Your task to perform on an android device: Show the shopping cart on ebay. Search for "energizer triple a" on ebay, select the first entry, add it to the cart, then select checkout. Image 0: 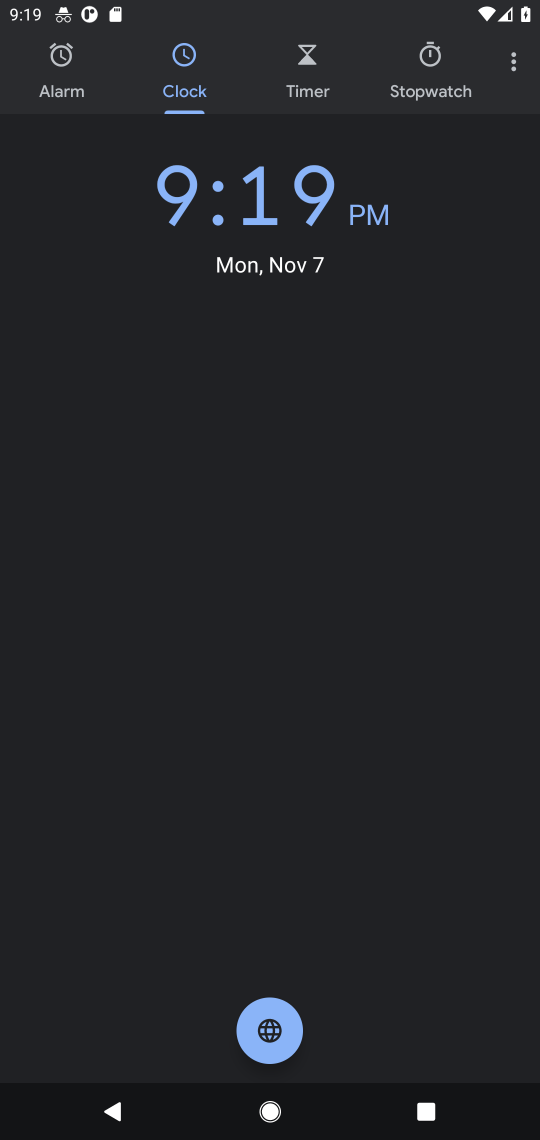
Step 0: press home button
Your task to perform on an android device: Show the shopping cart on ebay. Search for "energizer triple a" on ebay, select the first entry, add it to the cart, then select checkout. Image 1: 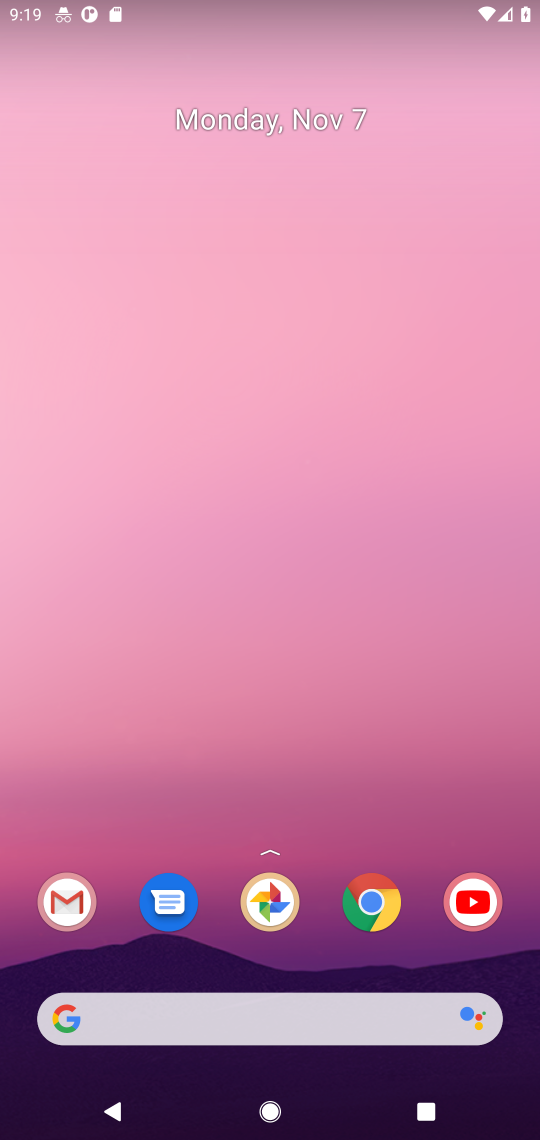
Step 1: click (359, 905)
Your task to perform on an android device: Show the shopping cart on ebay. Search for "energizer triple a" on ebay, select the first entry, add it to the cart, then select checkout. Image 2: 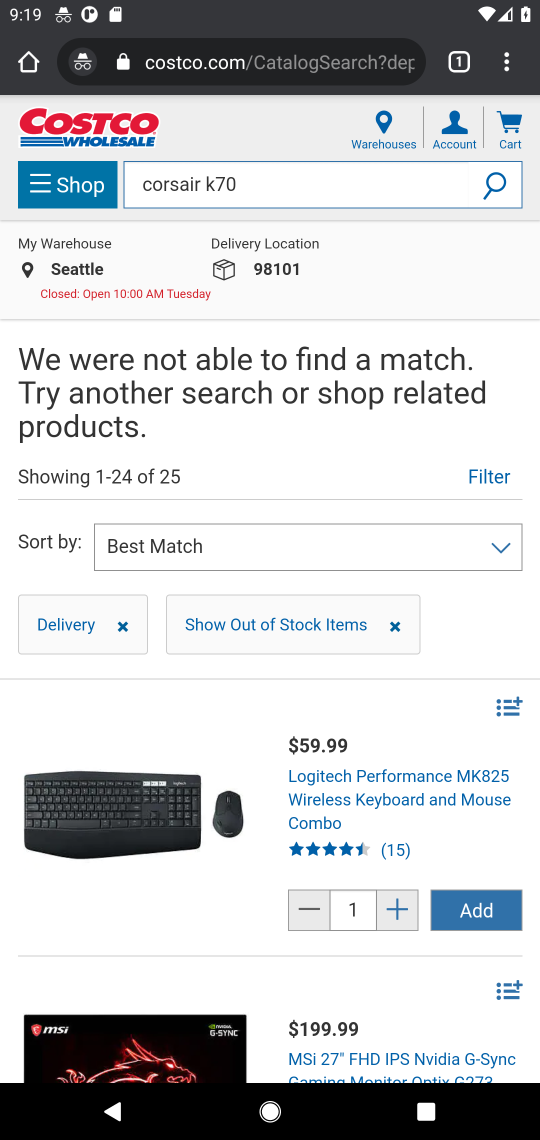
Step 2: click (238, 58)
Your task to perform on an android device: Show the shopping cart on ebay. Search for "energizer triple a" on ebay, select the first entry, add it to the cart, then select checkout. Image 3: 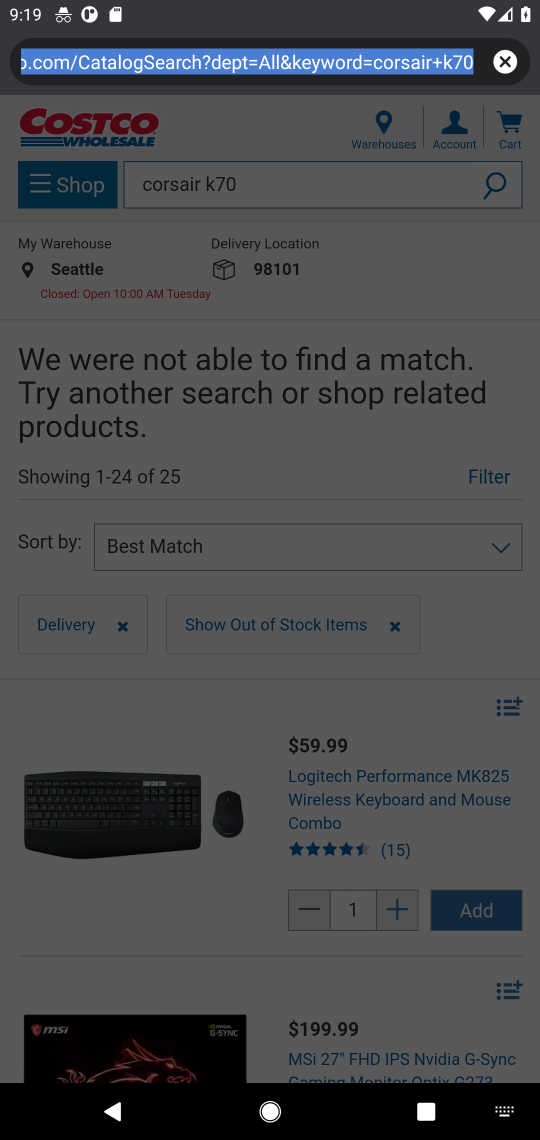
Step 3: type "ebay.com"
Your task to perform on an android device: Show the shopping cart on ebay. Search for "energizer triple a" on ebay, select the first entry, add it to the cart, then select checkout. Image 4: 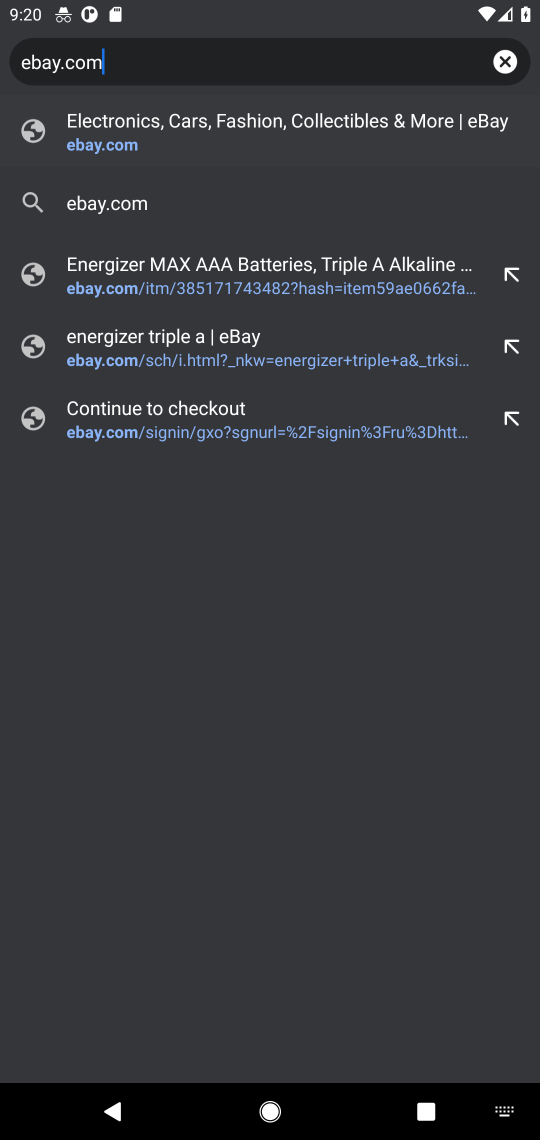
Step 4: click (117, 150)
Your task to perform on an android device: Show the shopping cart on ebay. Search for "energizer triple a" on ebay, select the first entry, add it to the cart, then select checkout. Image 5: 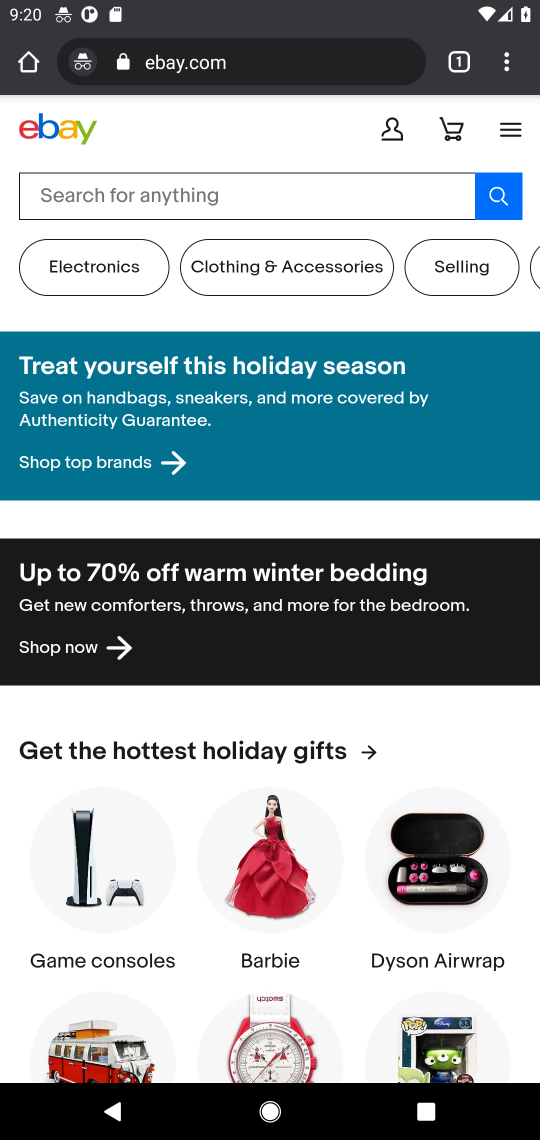
Step 5: click (449, 128)
Your task to perform on an android device: Show the shopping cart on ebay. Search for "energizer triple a" on ebay, select the first entry, add it to the cart, then select checkout. Image 6: 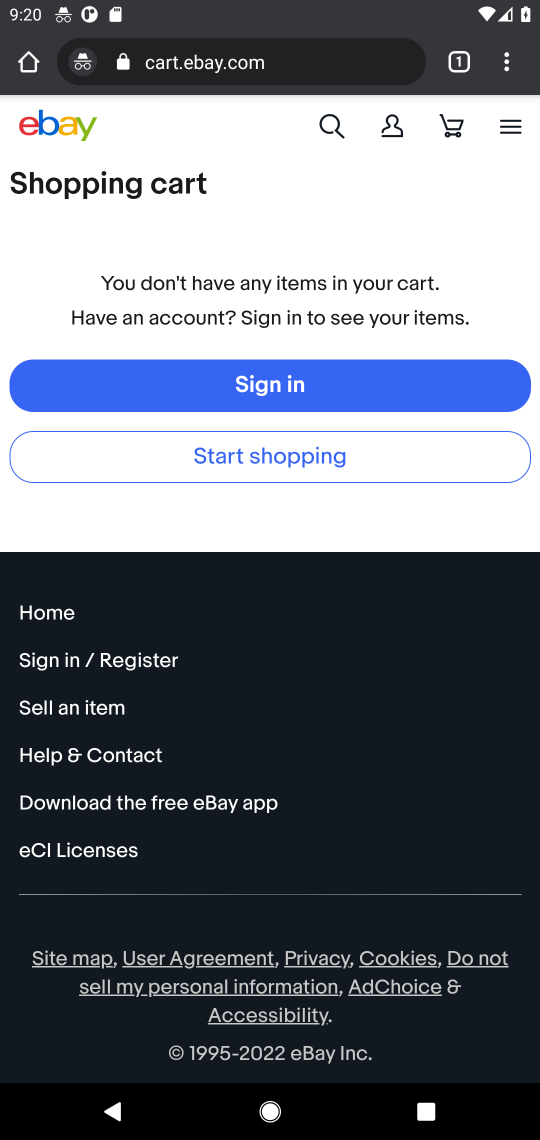
Step 6: click (341, 121)
Your task to perform on an android device: Show the shopping cart on ebay. Search for "energizer triple a" on ebay, select the first entry, add it to the cart, then select checkout. Image 7: 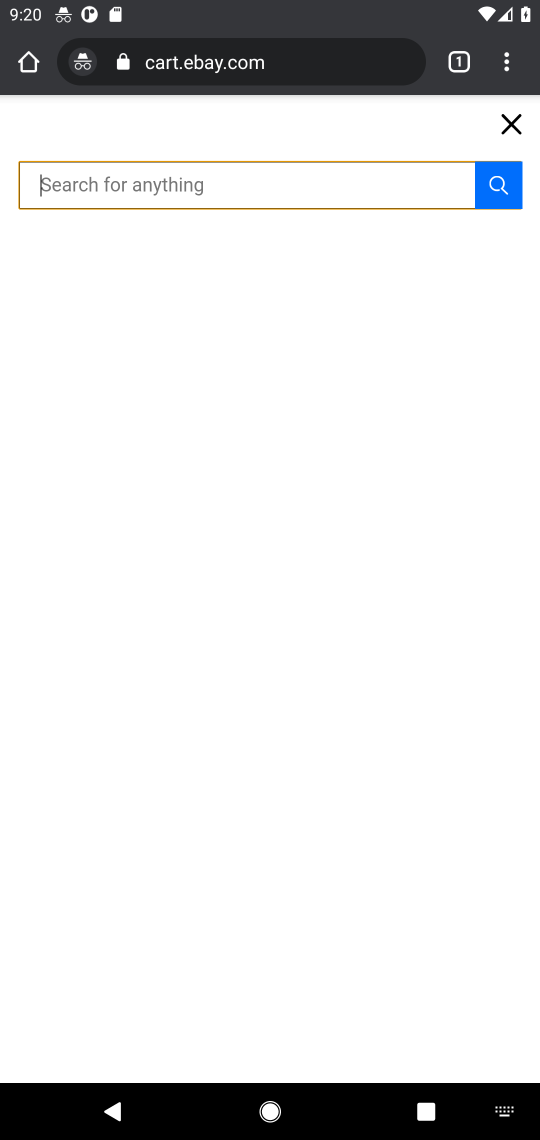
Step 7: type "energizer triple a"
Your task to perform on an android device: Show the shopping cart on ebay. Search for "energizer triple a" on ebay, select the first entry, add it to the cart, then select checkout. Image 8: 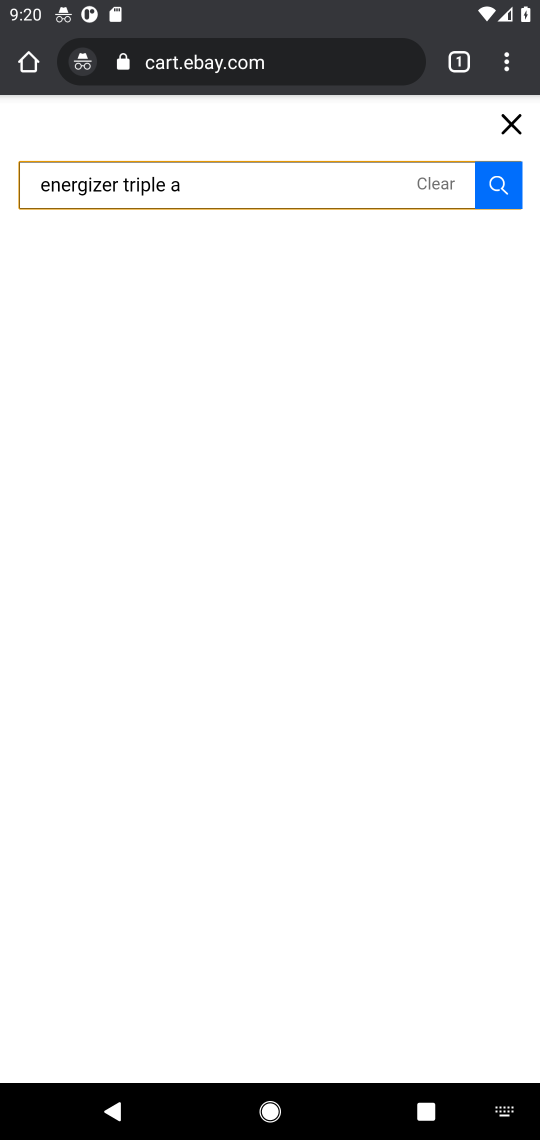
Step 8: click (504, 192)
Your task to perform on an android device: Show the shopping cart on ebay. Search for "energizer triple a" on ebay, select the first entry, add it to the cart, then select checkout. Image 9: 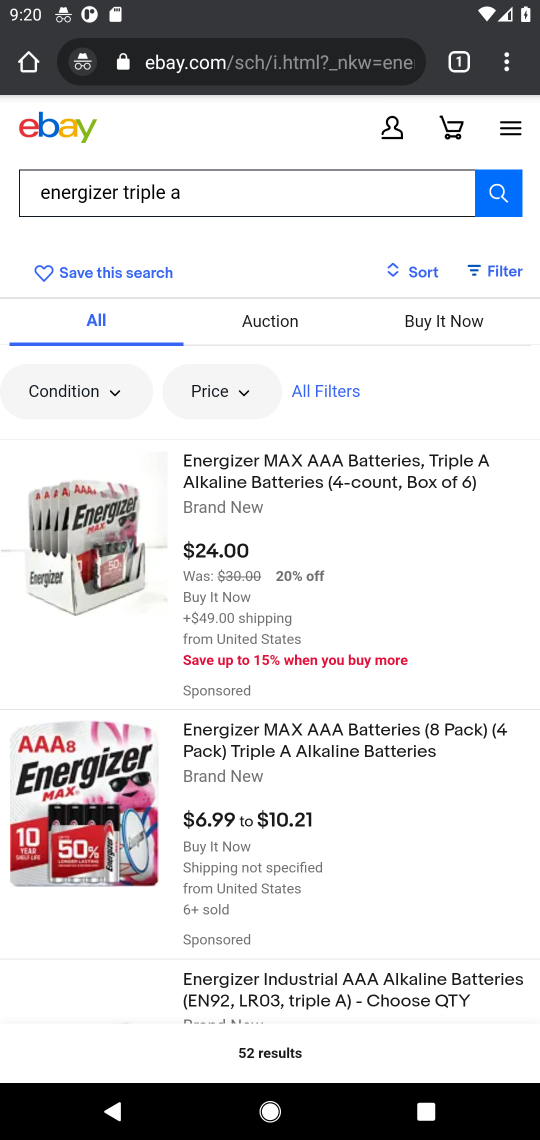
Step 9: click (166, 598)
Your task to perform on an android device: Show the shopping cart on ebay. Search for "energizer triple a" on ebay, select the first entry, add it to the cart, then select checkout. Image 10: 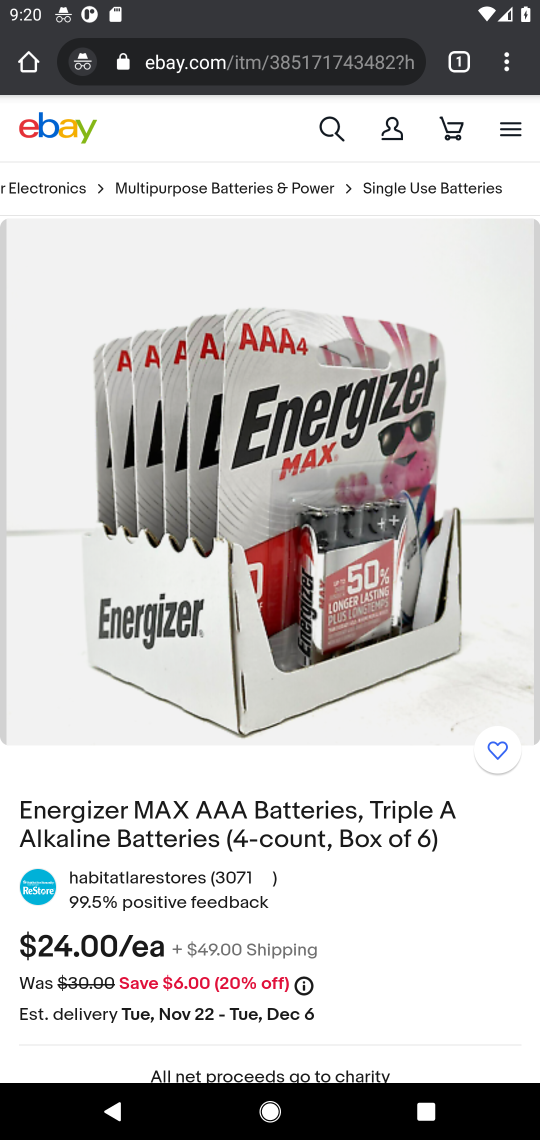
Step 10: drag from (346, 761) to (328, 314)
Your task to perform on an android device: Show the shopping cart on ebay. Search for "energizer triple a" on ebay, select the first entry, add it to the cart, then select checkout. Image 11: 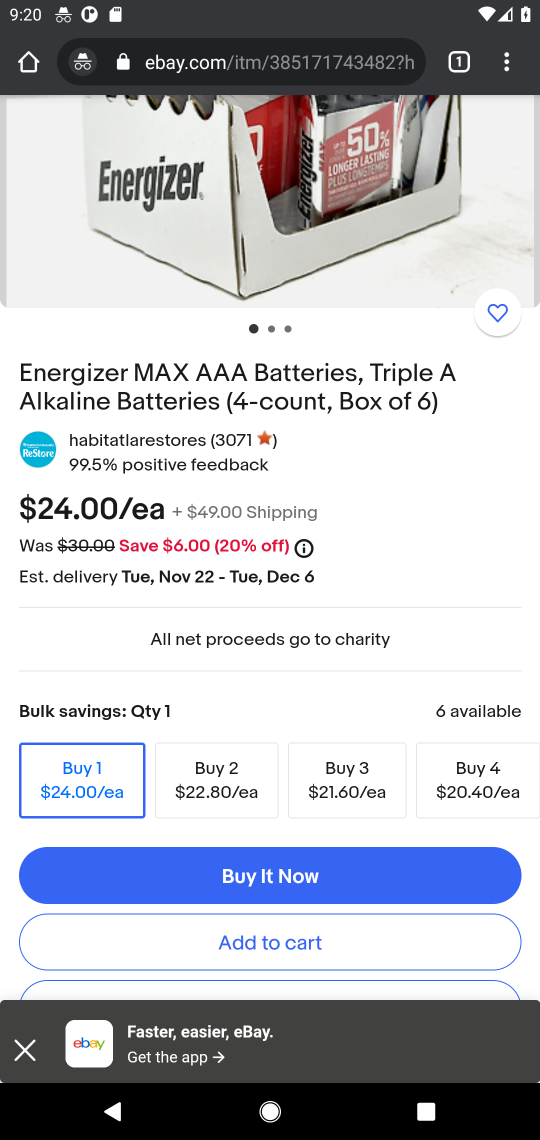
Step 11: click (247, 947)
Your task to perform on an android device: Show the shopping cart on ebay. Search for "energizer triple a" on ebay, select the first entry, add it to the cart, then select checkout. Image 12: 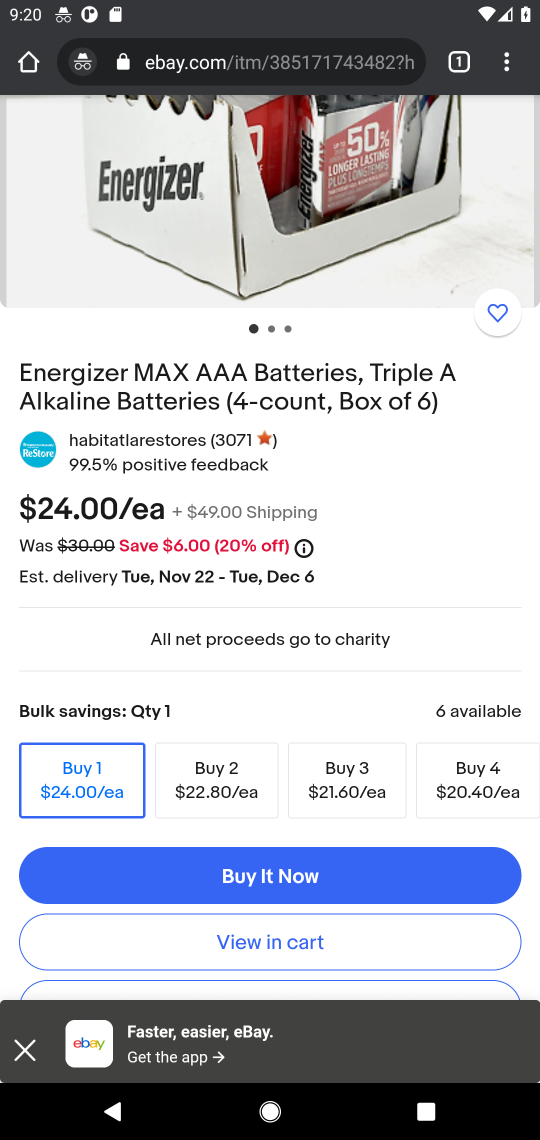
Step 12: click (247, 947)
Your task to perform on an android device: Show the shopping cart on ebay. Search for "energizer triple a" on ebay, select the first entry, add it to the cart, then select checkout. Image 13: 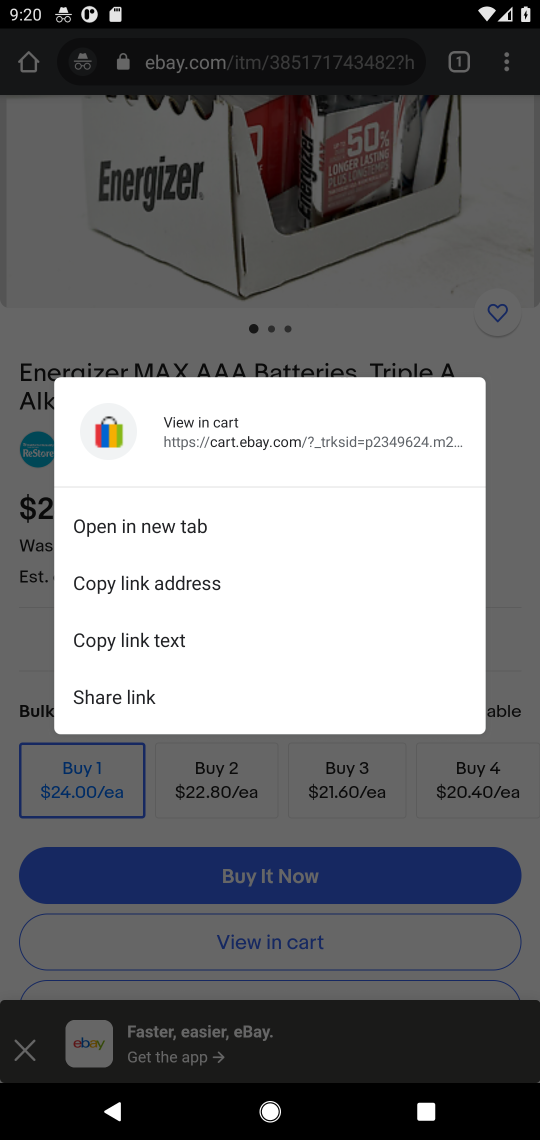
Step 13: click (247, 947)
Your task to perform on an android device: Show the shopping cart on ebay. Search for "energizer triple a" on ebay, select the first entry, add it to the cart, then select checkout. Image 14: 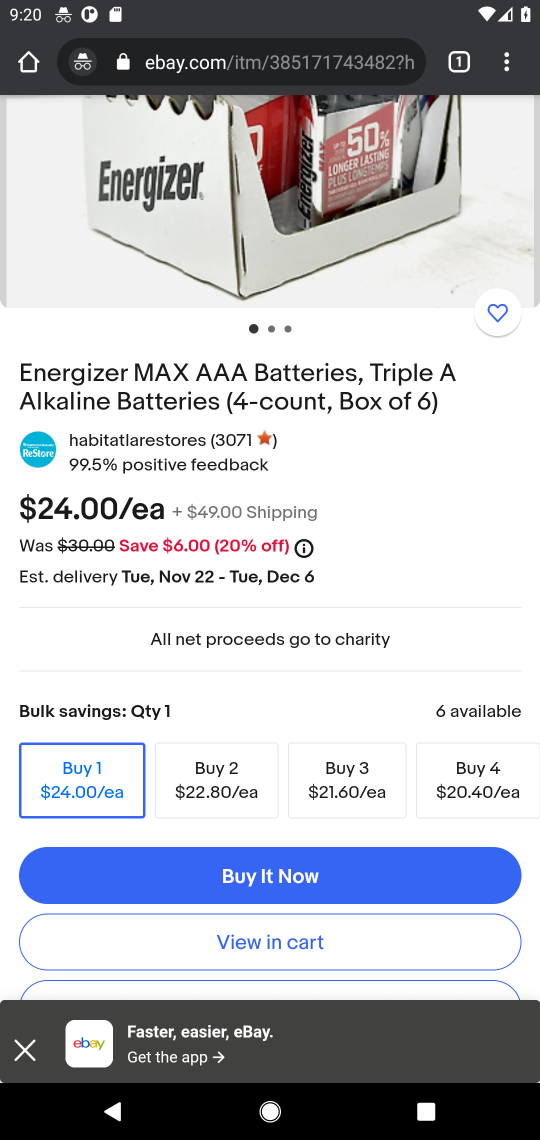
Step 14: click (284, 938)
Your task to perform on an android device: Show the shopping cart on ebay. Search for "energizer triple a" on ebay, select the first entry, add it to the cart, then select checkout. Image 15: 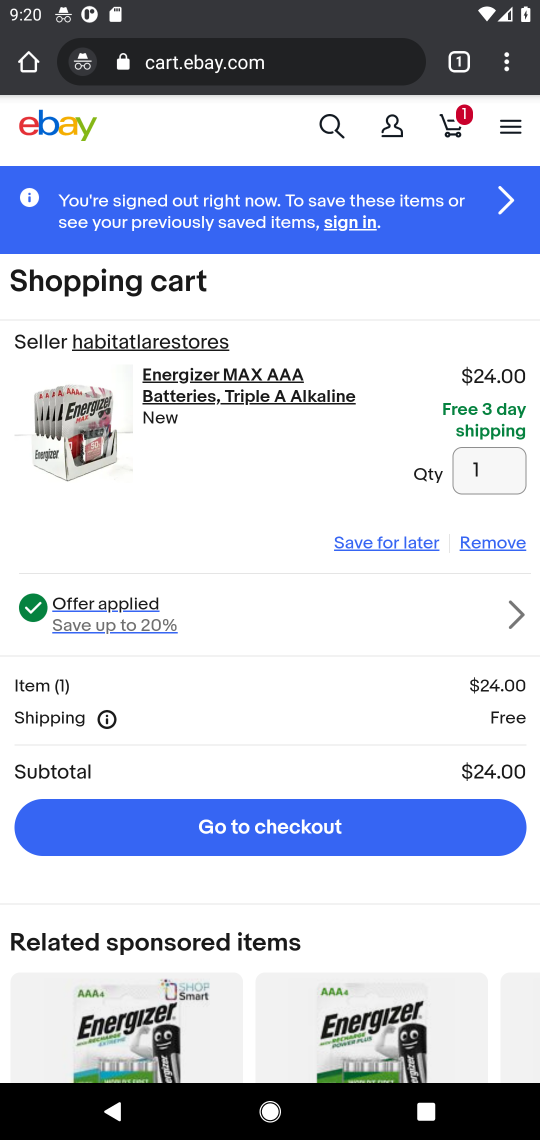
Step 15: click (264, 828)
Your task to perform on an android device: Show the shopping cart on ebay. Search for "energizer triple a" on ebay, select the first entry, add it to the cart, then select checkout. Image 16: 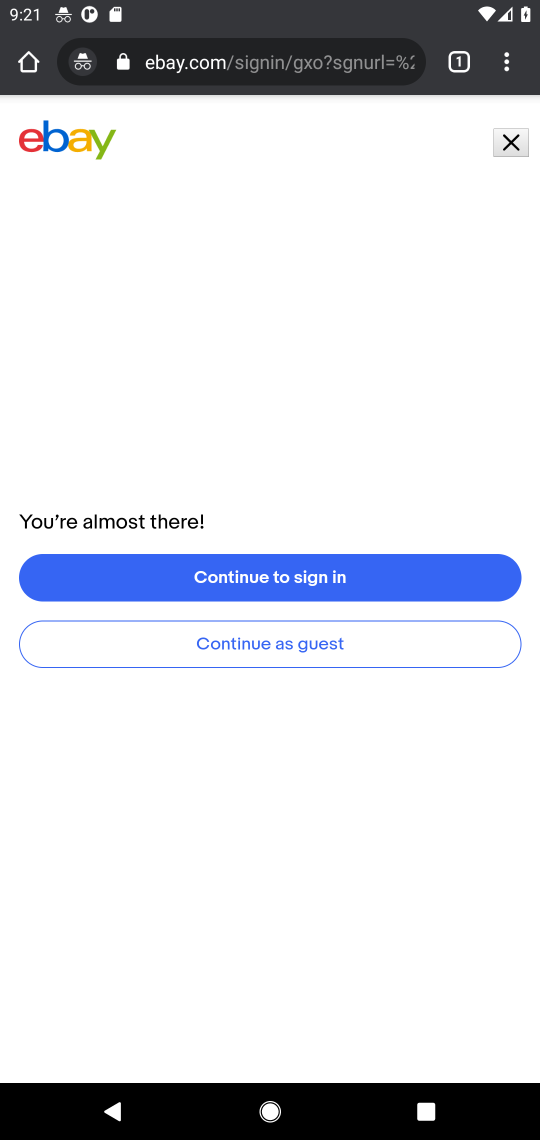
Step 16: task complete